Your task to perform on an android device: delete the emails in spam in the gmail app Image 0: 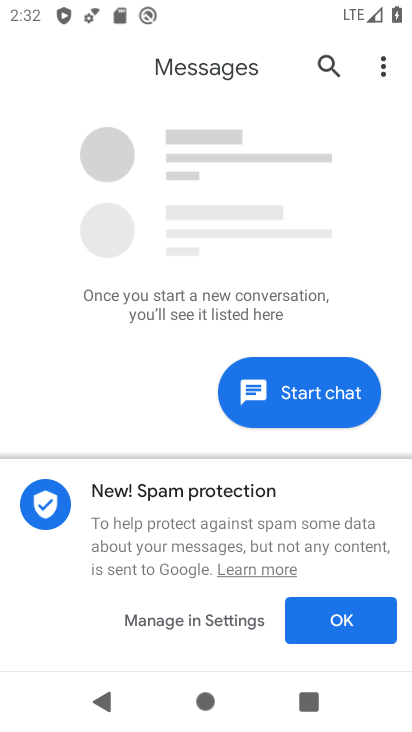
Step 0: press home button
Your task to perform on an android device: delete the emails in spam in the gmail app Image 1: 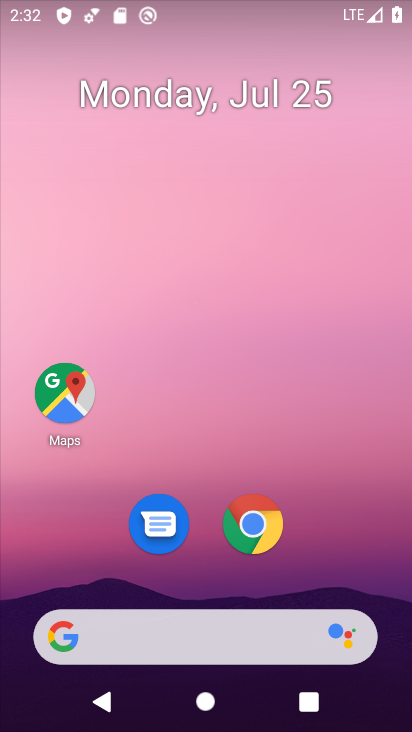
Step 1: drag from (340, 524) to (322, 37)
Your task to perform on an android device: delete the emails in spam in the gmail app Image 2: 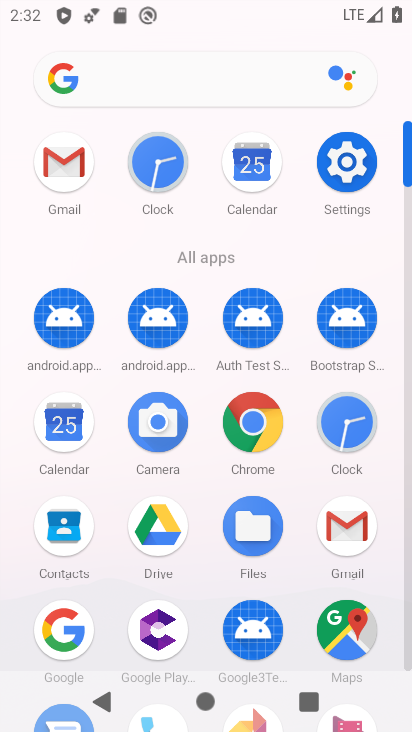
Step 2: click (63, 159)
Your task to perform on an android device: delete the emails in spam in the gmail app Image 3: 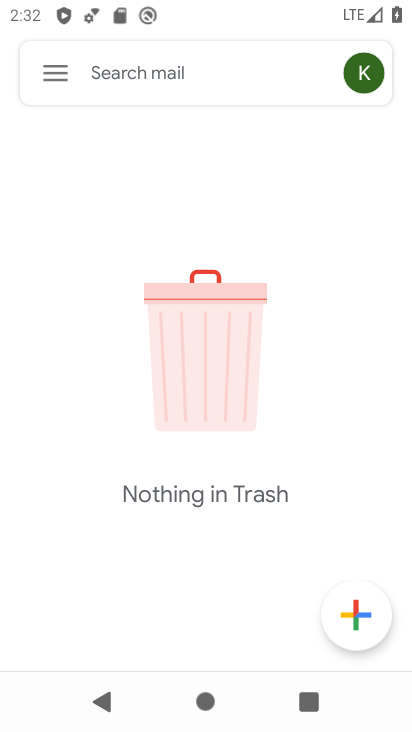
Step 3: click (58, 61)
Your task to perform on an android device: delete the emails in spam in the gmail app Image 4: 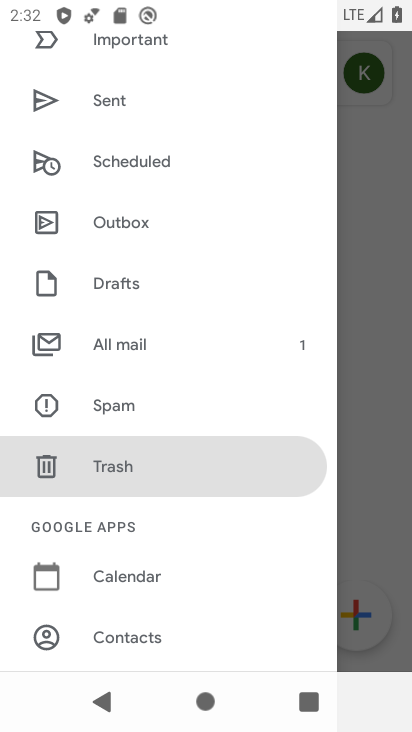
Step 4: click (114, 398)
Your task to perform on an android device: delete the emails in spam in the gmail app Image 5: 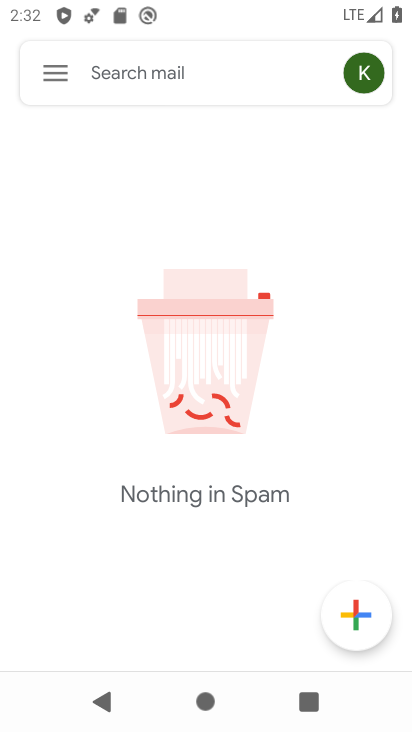
Step 5: task complete